Your task to perform on an android device: set an alarm Image 0: 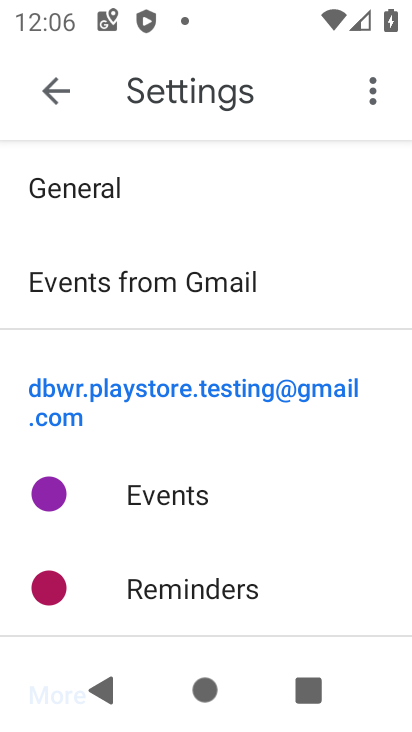
Step 0: press home button
Your task to perform on an android device: set an alarm Image 1: 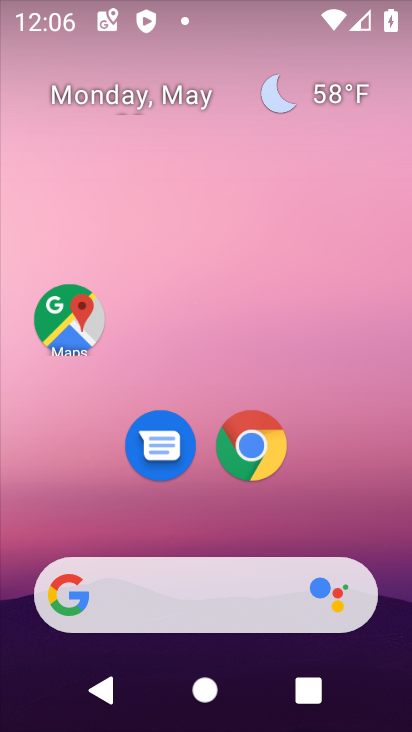
Step 1: drag from (219, 520) to (222, 114)
Your task to perform on an android device: set an alarm Image 2: 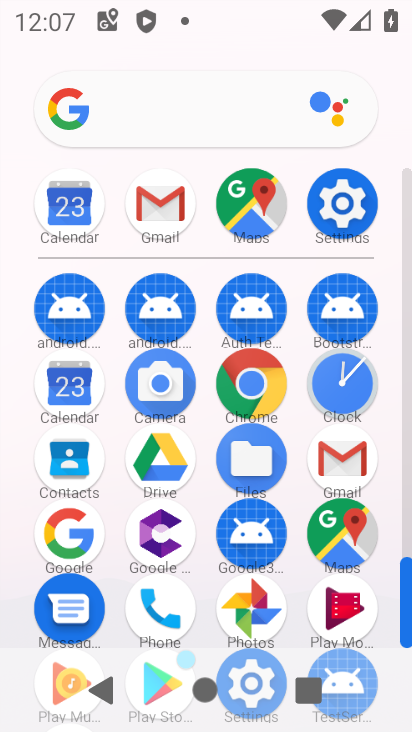
Step 2: click (341, 372)
Your task to perform on an android device: set an alarm Image 3: 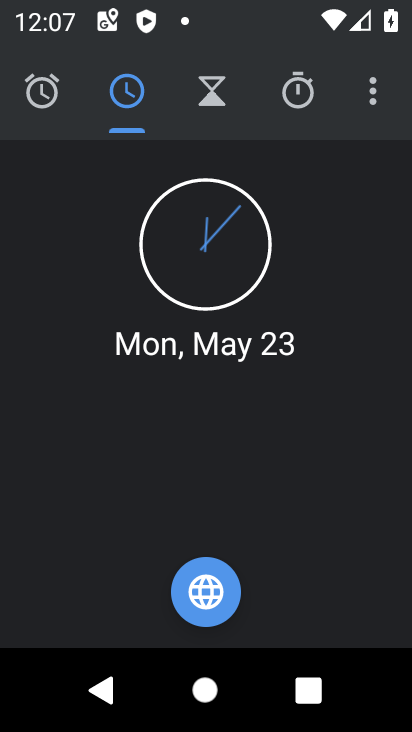
Step 3: click (372, 88)
Your task to perform on an android device: set an alarm Image 4: 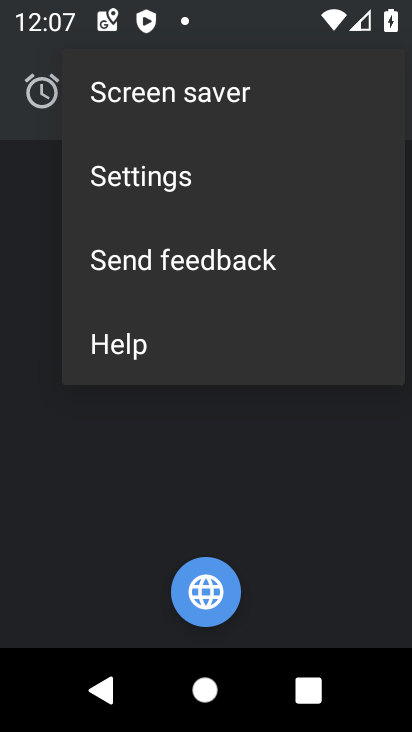
Step 4: click (297, 445)
Your task to perform on an android device: set an alarm Image 5: 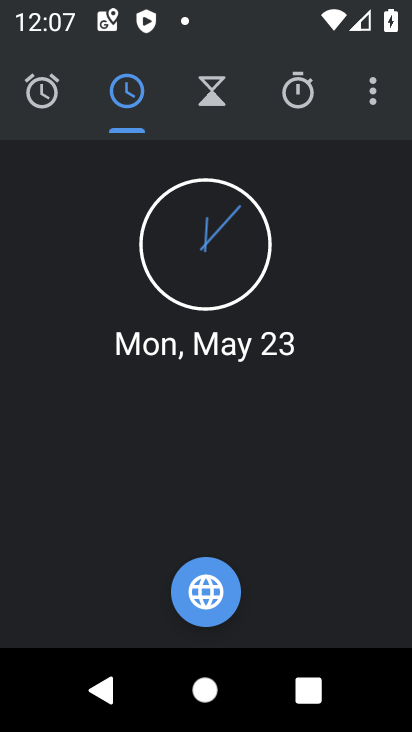
Step 5: click (46, 93)
Your task to perform on an android device: set an alarm Image 6: 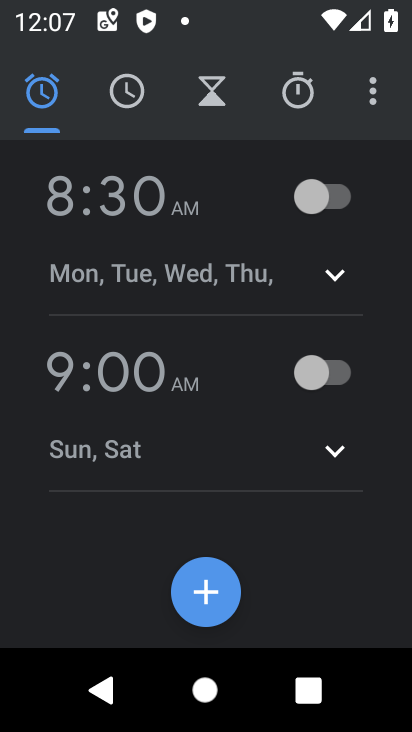
Step 6: click (338, 194)
Your task to perform on an android device: set an alarm Image 7: 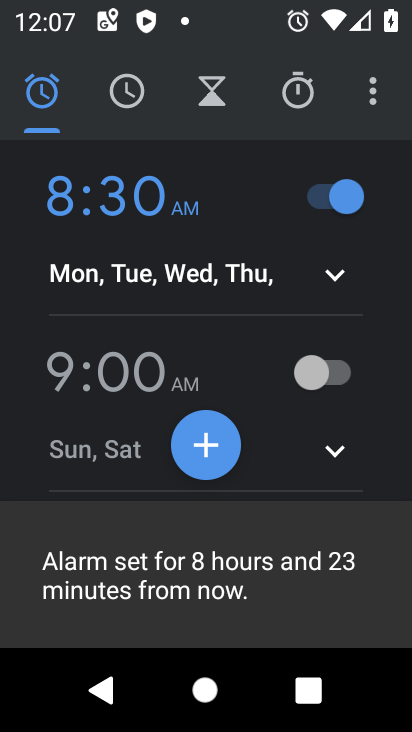
Step 7: task complete